Your task to perform on an android device: change the clock style Image 0: 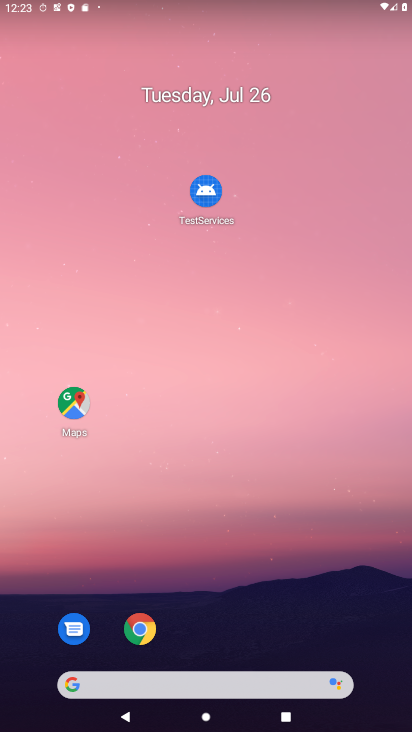
Step 0: click (216, 39)
Your task to perform on an android device: change the clock style Image 1: 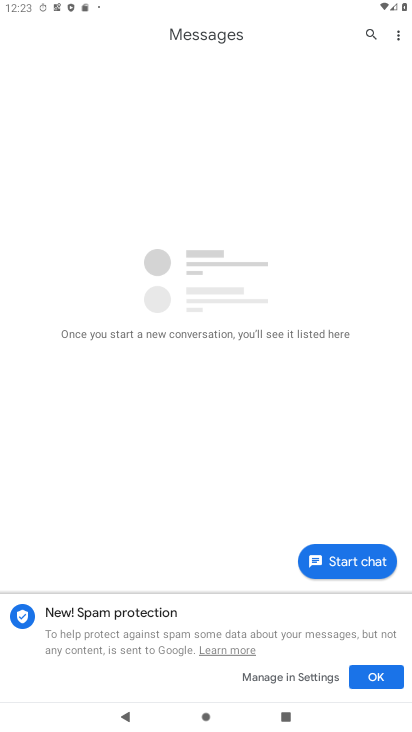
Step 1: drag from (227, 485) to (217, 110)
Your task to perform on an android device: change the clock style Image 2: 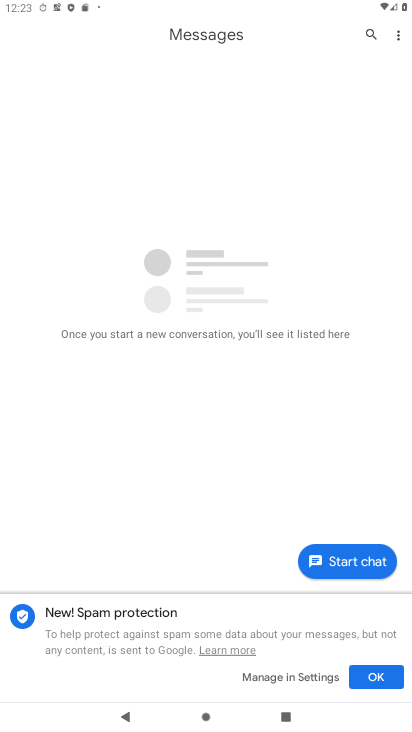
Step 2: press back button
Your task to perform on an android device: change the clock style Image 3: 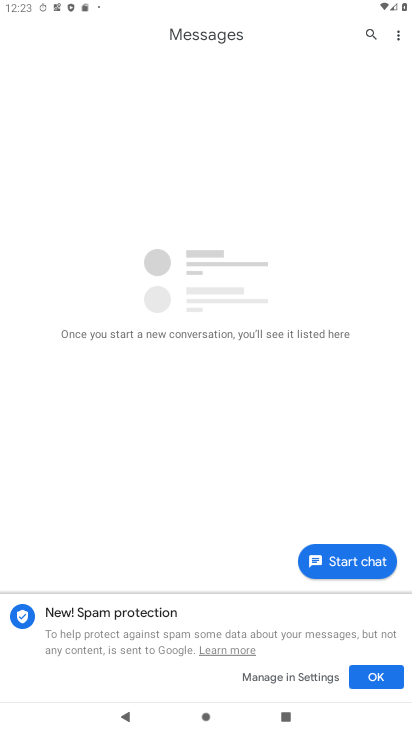
Step 3: press back button
Your task to perform on an android device: change the clock style Image 4: 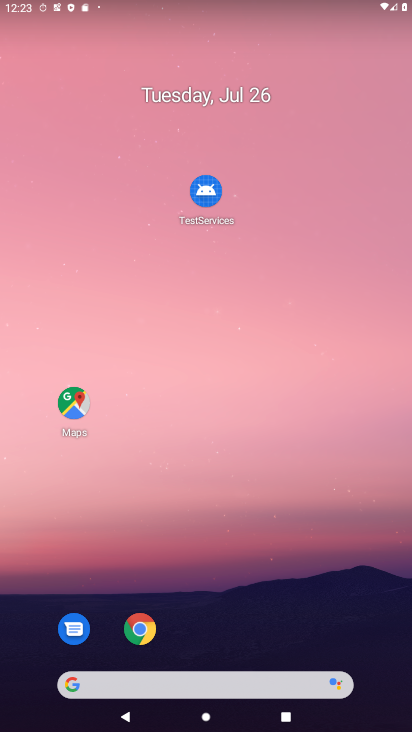
Step 4: drag from (247, 659) to (213, 70)
Your task to perform on an android device: change the clock style Image 5: 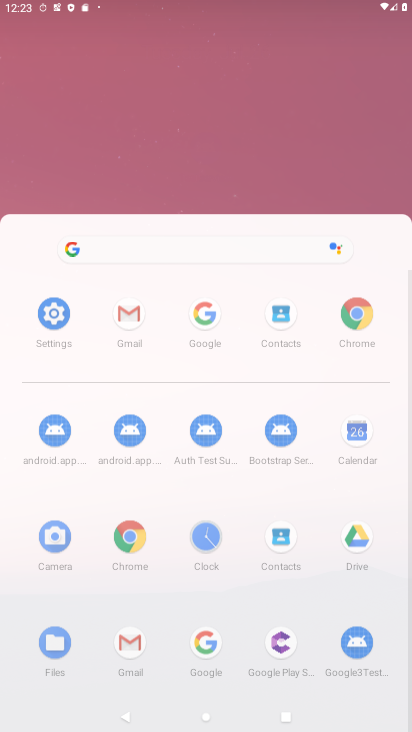
Step 5: drag from (270, 507) to (244, 130)
Your task to perform on an android device: change the clock style Image 6: 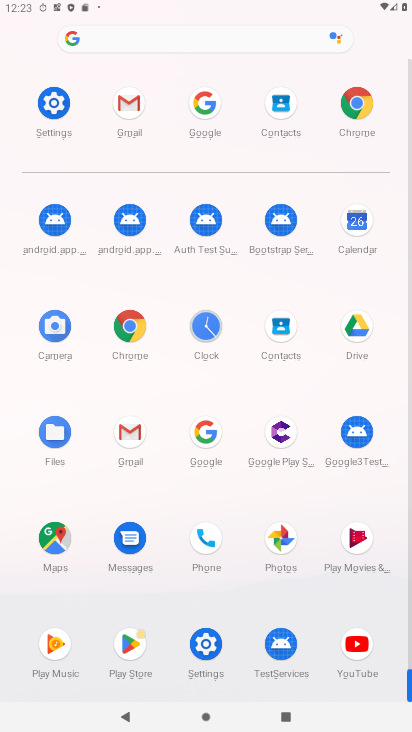
Step 6: click (203, 321)
Your task to perform on an android device: change the clock style Image 7: 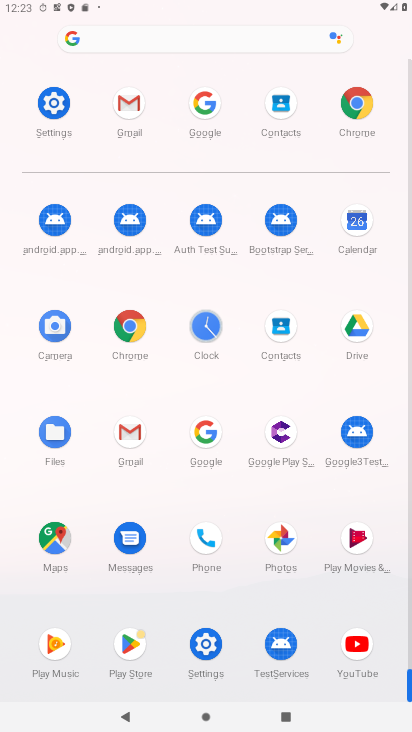
Step 7: click (204, 322)
Your task to perform on an android device: change the clock style Image 8: 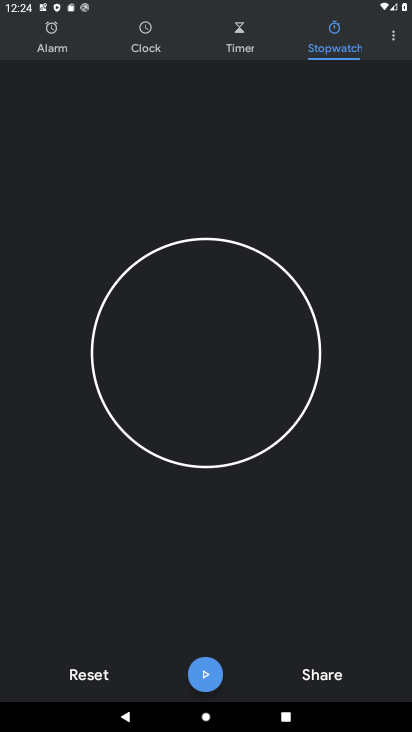
Step 8: click (398, 39)
Your task to perform on an android device: change the clock style Image 9: 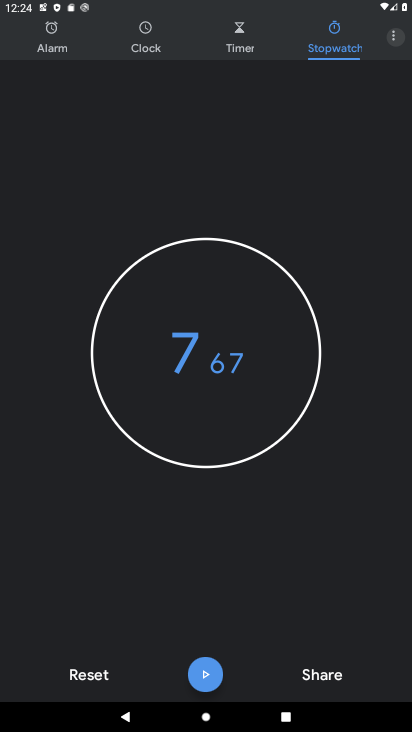
Step 9: click (391, 32)
Your task to perform on an android device: change the clock style Image 10: 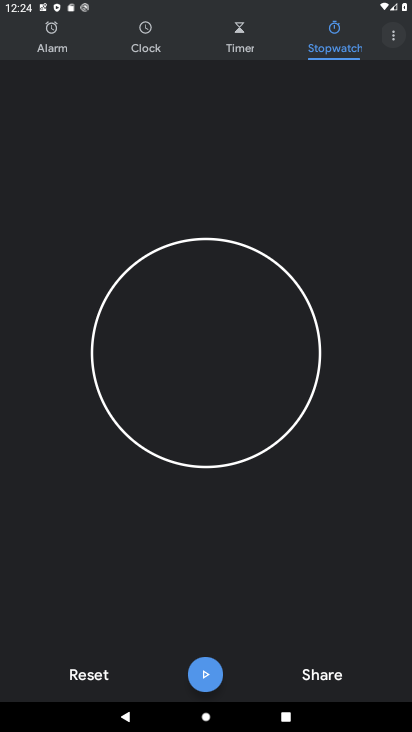
Step 10: click (389, 35)
Your task to perform on an android device: change the clock style Image 11: 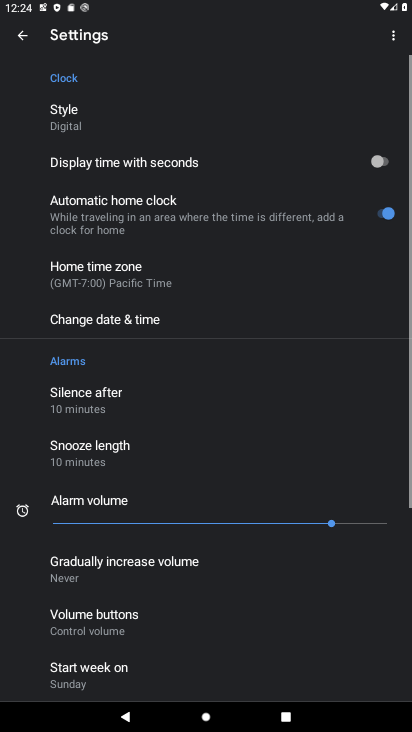
Step 11: click (323, 67)
Your task to perform on an android device: change the clock style Image 12: 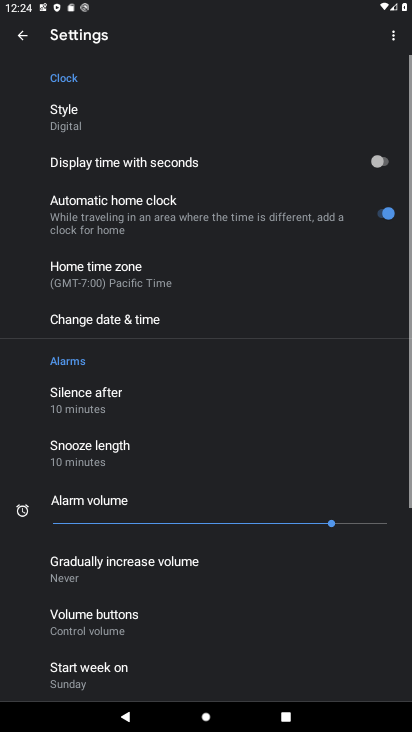
Step 12: click (74, 123)
Your task to perform on an android device: change the clock style Image 13: 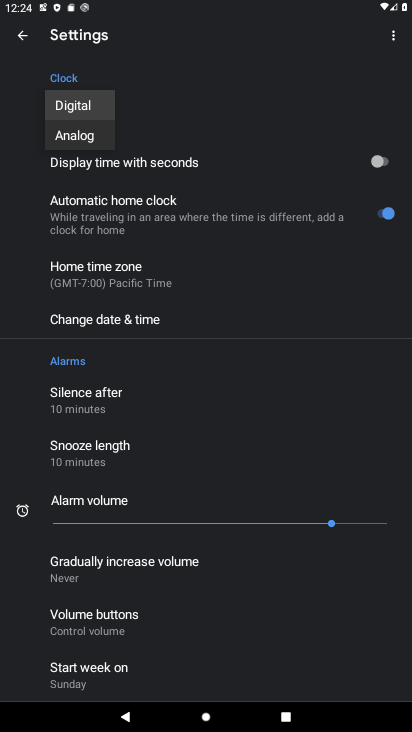
Step 13: click (73, 135)
Your task to perform on an android device: change the clock style Image 14: 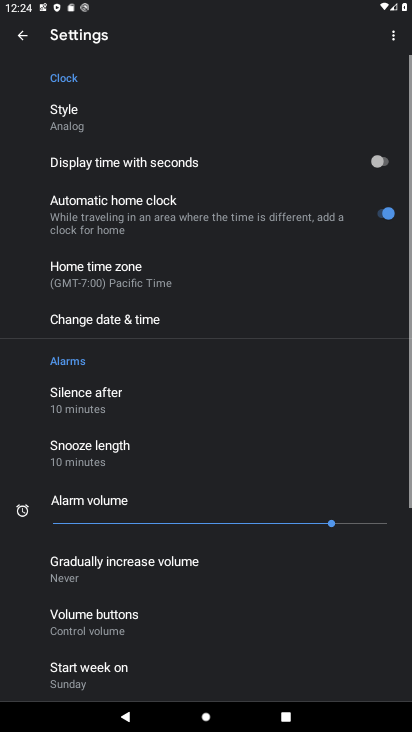
Step 14: task complete